Your task to perform on an android device: check out phone information Image 0: 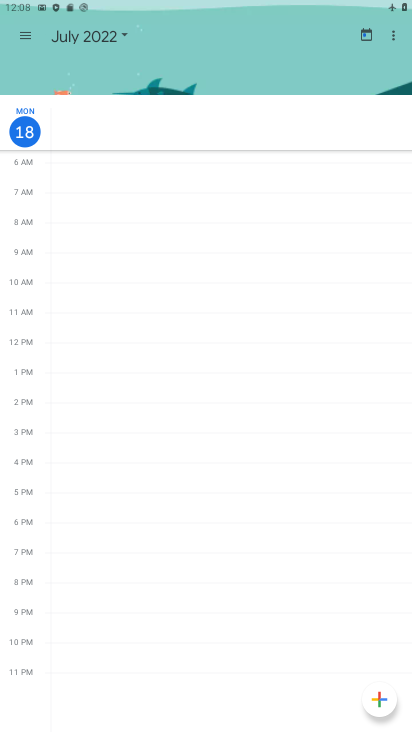
Step 0: press home button
Your task to perform on an android device: check out phone information Image 1: 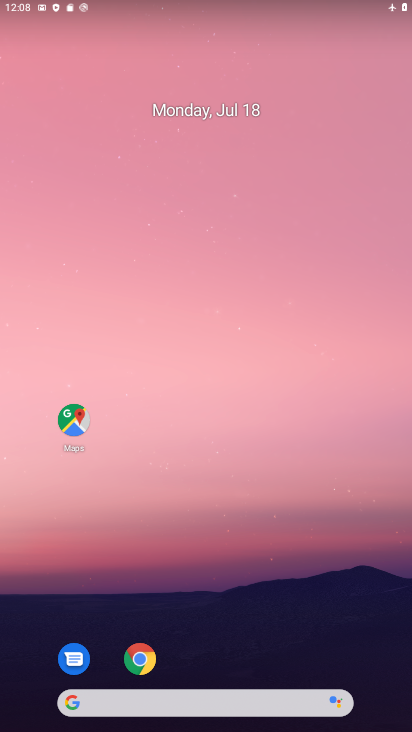
Step 1: drag from (217, 638) to (38, 3)
Your task to perform on an android device: check out phone information Image 2: 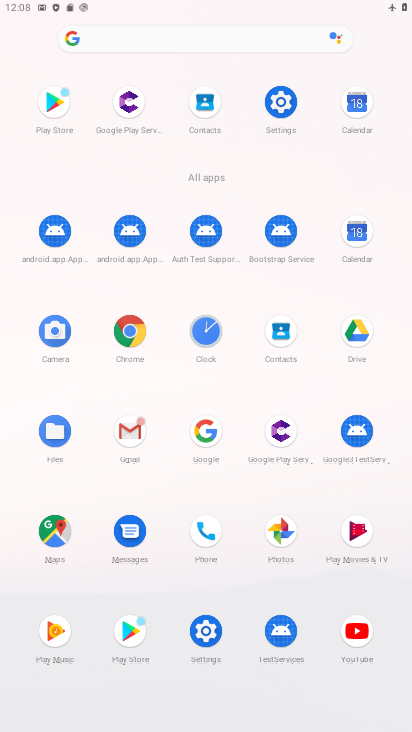
Step 2: click (195, 645)
Your task to perform on an android device: check out phone information Image 3: 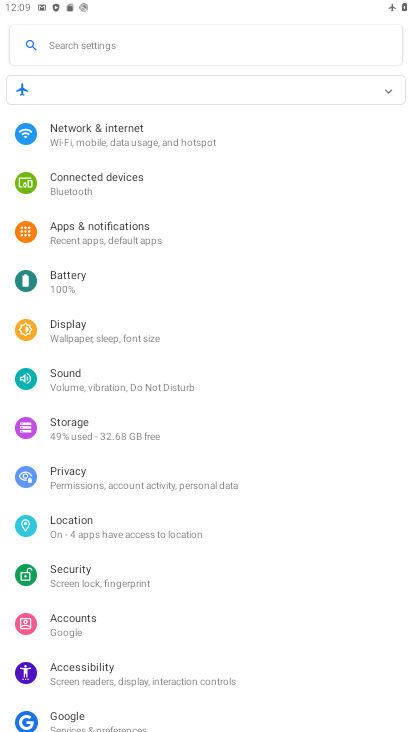
Step 3: drag from (147, 532) to (151, 357)
Your task to perform on an android device: check out phone information Image 4: 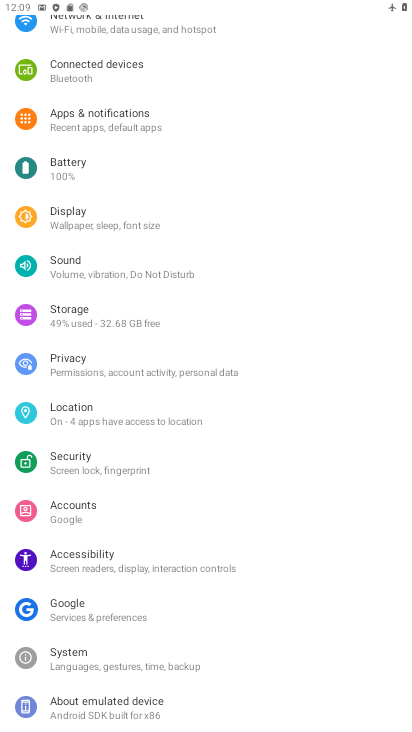
Step 4: click (87, 723)
Your task to perform on an android device: check out phone information Image 5: 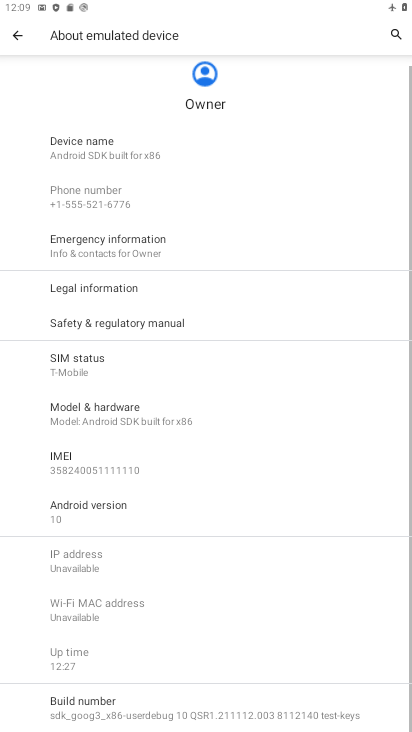
Step 5: task complete